Your task to perform on an android device: Open display settings Image 0: 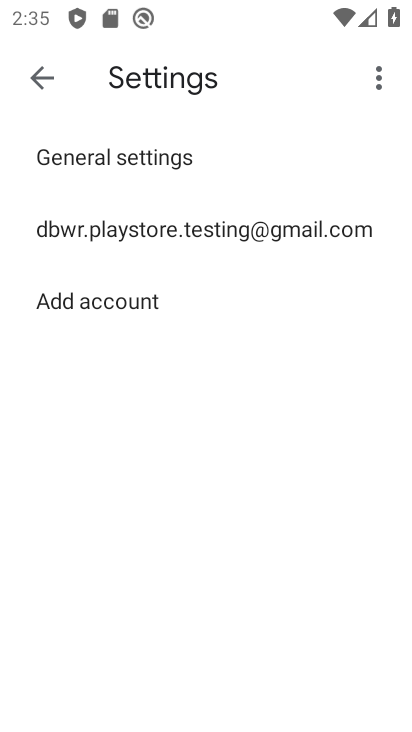
Step 0: press home button
Your task to perform on an android device: Open display settings Image 1: 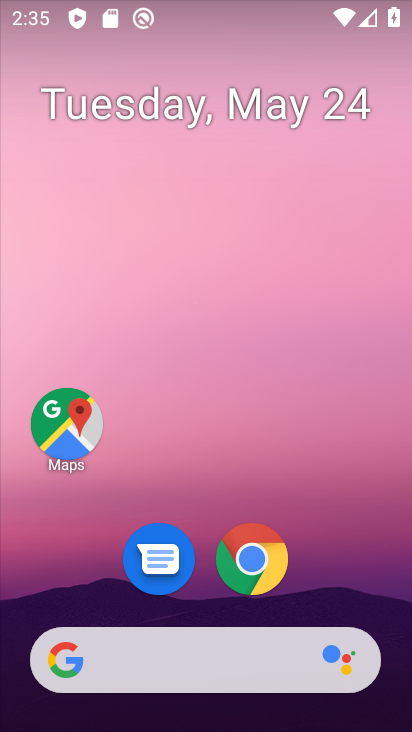
Step 1: drag from (219, 662) to (250, 237)
Your task to perform on an android device: Open display settings Image 2: 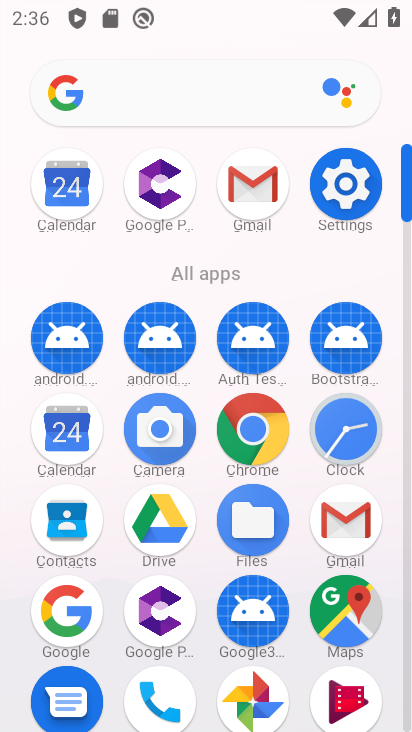
Step 2: click (339, 206)
Your task to perform on an android device: Open display settings Image 3: 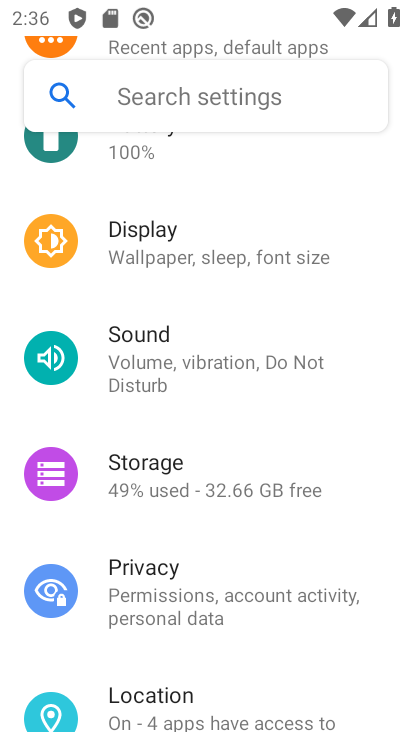
Step 3: click (175, 262)
Your task to perform on an android device: Open display settings Image 4: 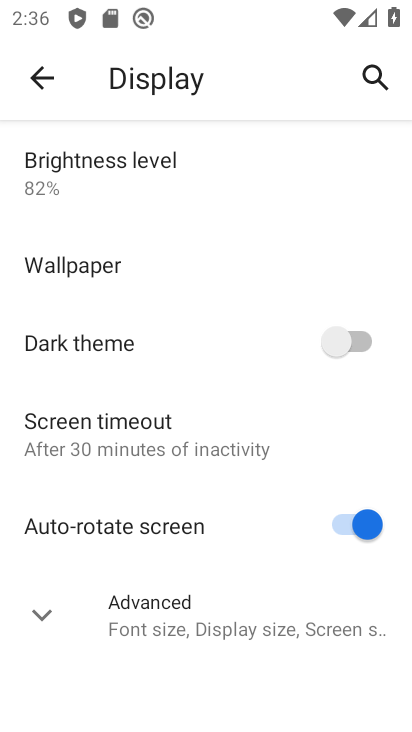
Step 4: task complete